Your task to perform on an android device: change the upload size in google photos Image 0: 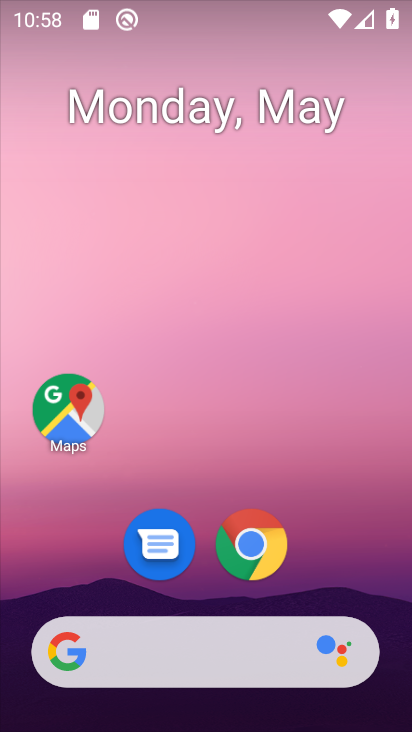
Step 0: drag from (118, 572) to (235, 97)
Your task to perform on an android device: change the upload size in google photos Image 1: 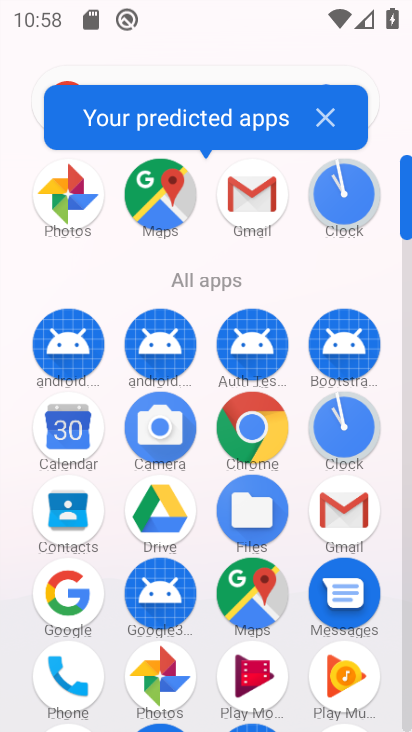
Step 1: drag from (129, 633) to (215, 319)
Your task to perform on an android device: change the upload size in google photos Image 2: 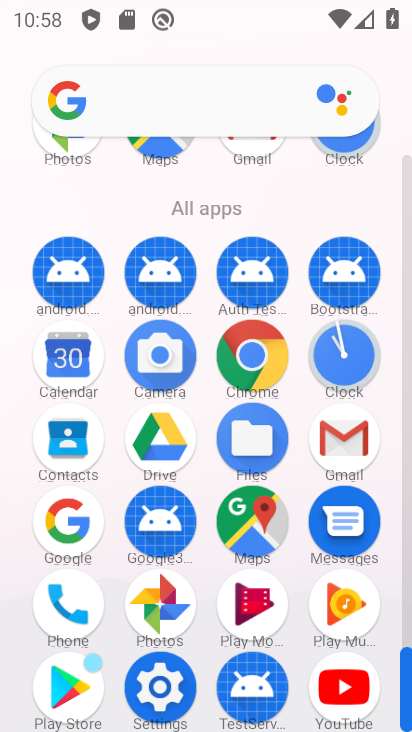
Step 2: click (164, 620)
Your task to perform on an android device: change the upload size in google photos Image 3: 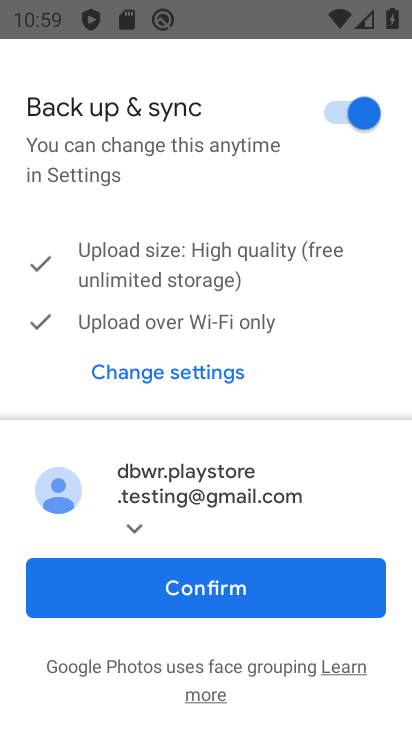
Step 3: click (254, 597)
Your task to perform on an android device: change the upload size in google photos Image 4: 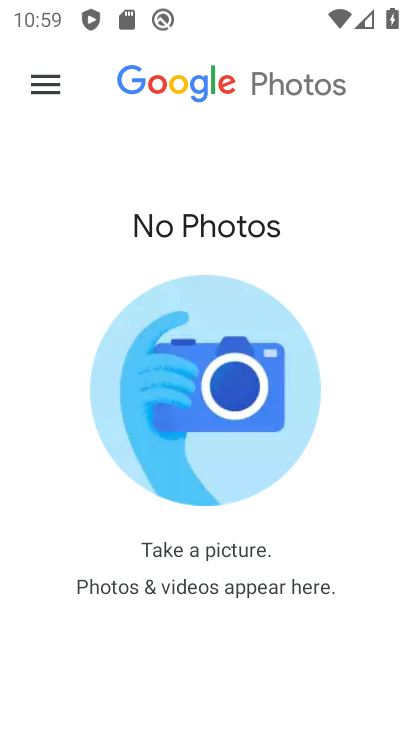
Step 4: click (27, 96)
Your task to perform on an android device: change the upload size in google photos Image 5: 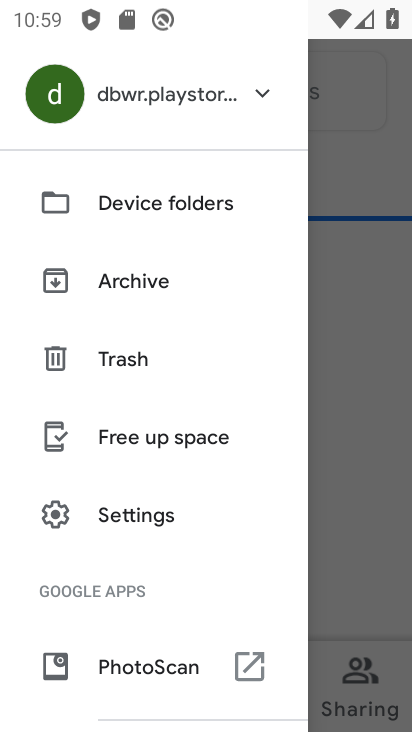
Step 5: click (184, 530)
Your task to perform on an android device: change the upload size in google photos Image 6: 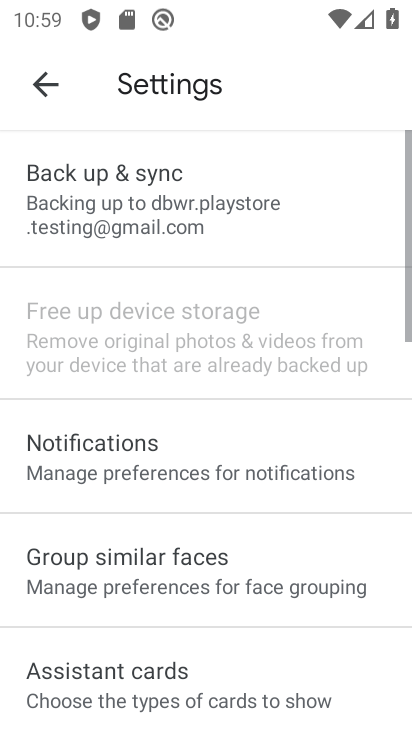
Step 6: click (201, 185)
Your task to perform on an android device: change the upload size in google photos Image 7: 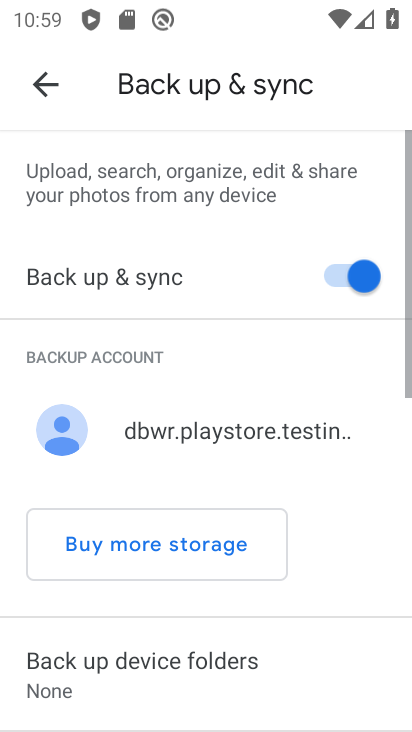
Step 7: drag from (197, 568) to (135, 521)
Your task to perform on an android device: change the upload size in google photos Image 8: 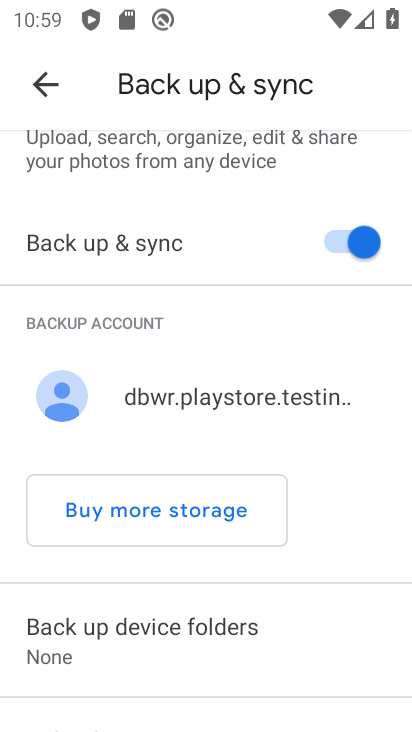
Step 8: drag from (202, 703) to (308, 317)
Your task to perform on an android device: change the upload size in google photos Image 9: 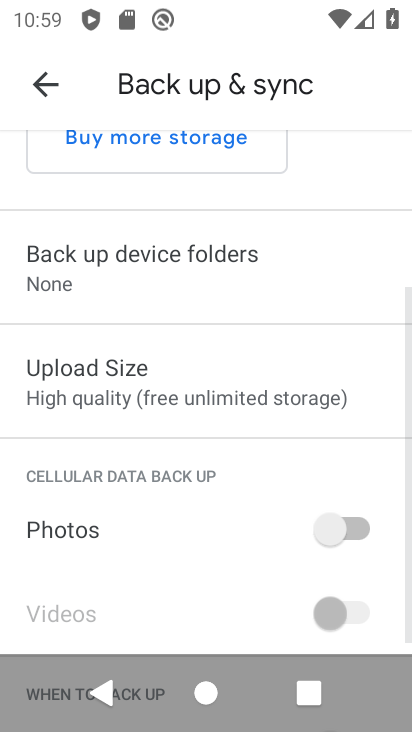
Step 9: click (184, 412)
Your task to perform on an android device: change the upload size in google photos Image 10: 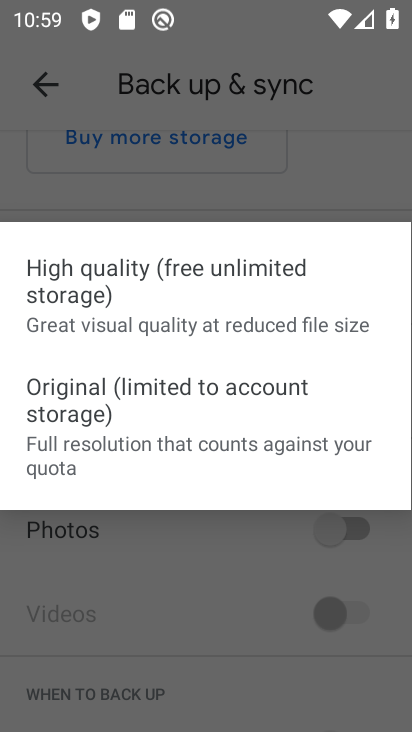
Step 10: click (160, 423)
Your task to perform on an android device: change the upload size in google photos Image 11: 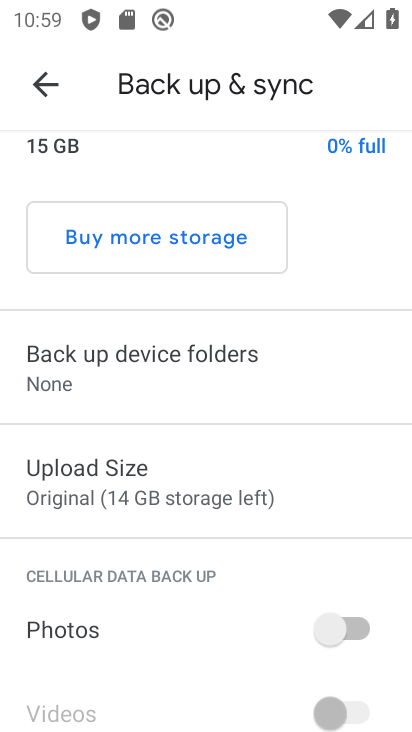
Step 11: task complete